Your task to perform on an android device: Search for flights from Helsinki to Tokyo Image 0: 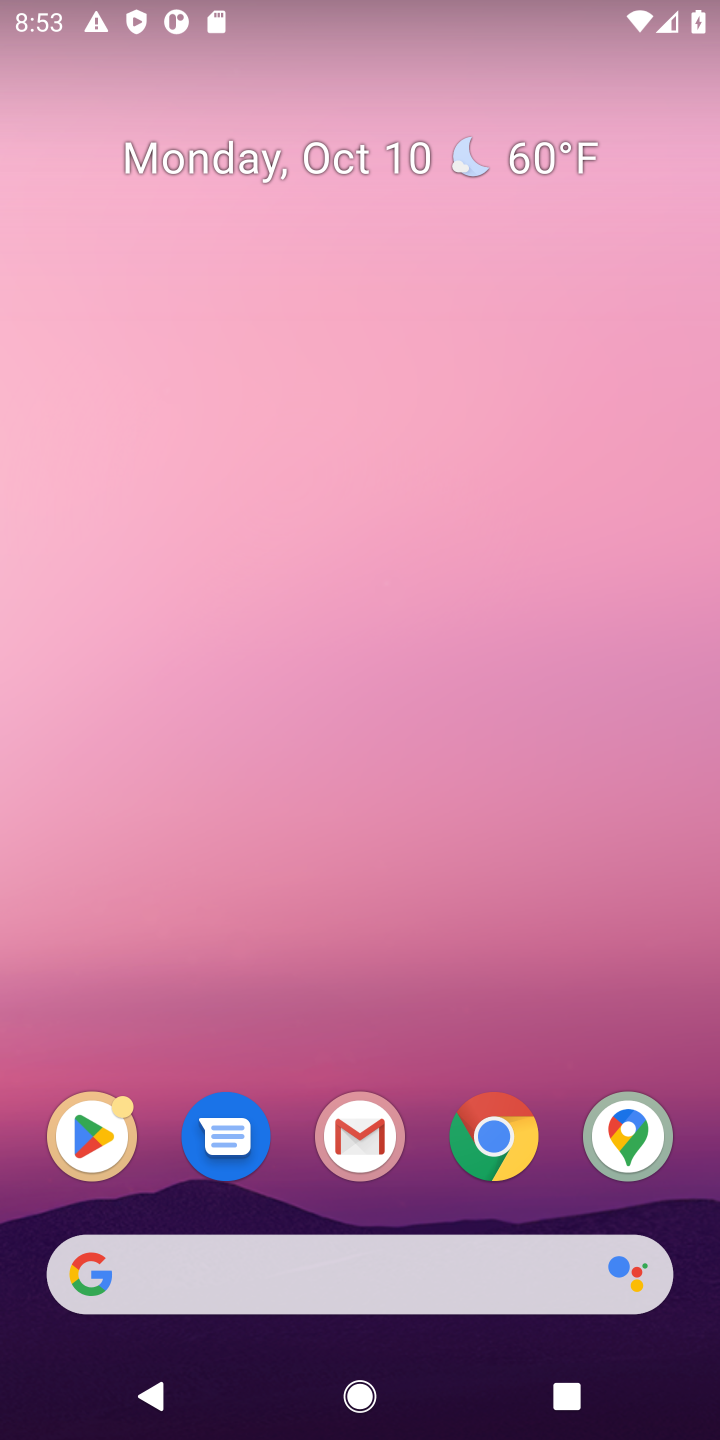
Step 0: click (385, 1299)
Your task to perform on an android device: Search for flights from Helsinki to Tokyo Image 1: 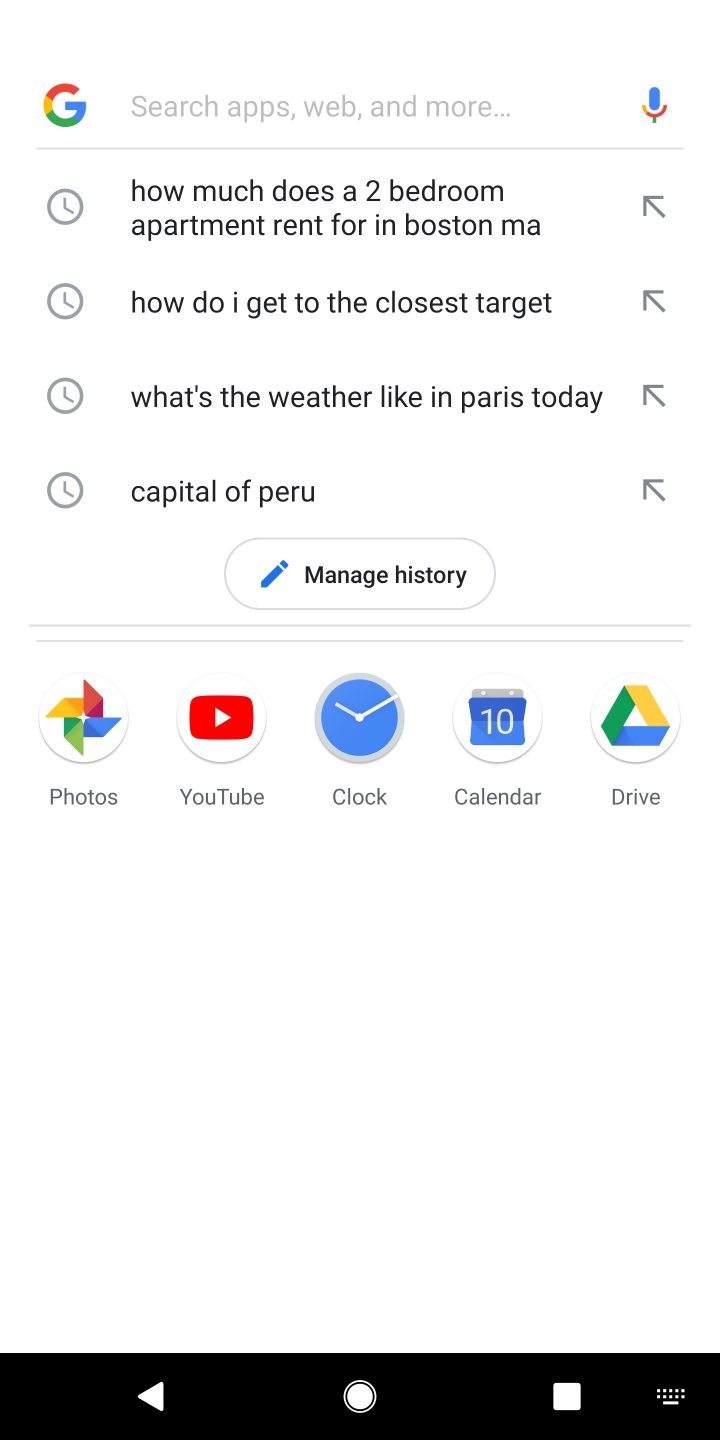
Step 1: type "flights from Helsinki to Tokyo"
Your task to perform on an android device: Search for flights from Helsinki to Tokyo Image 2: 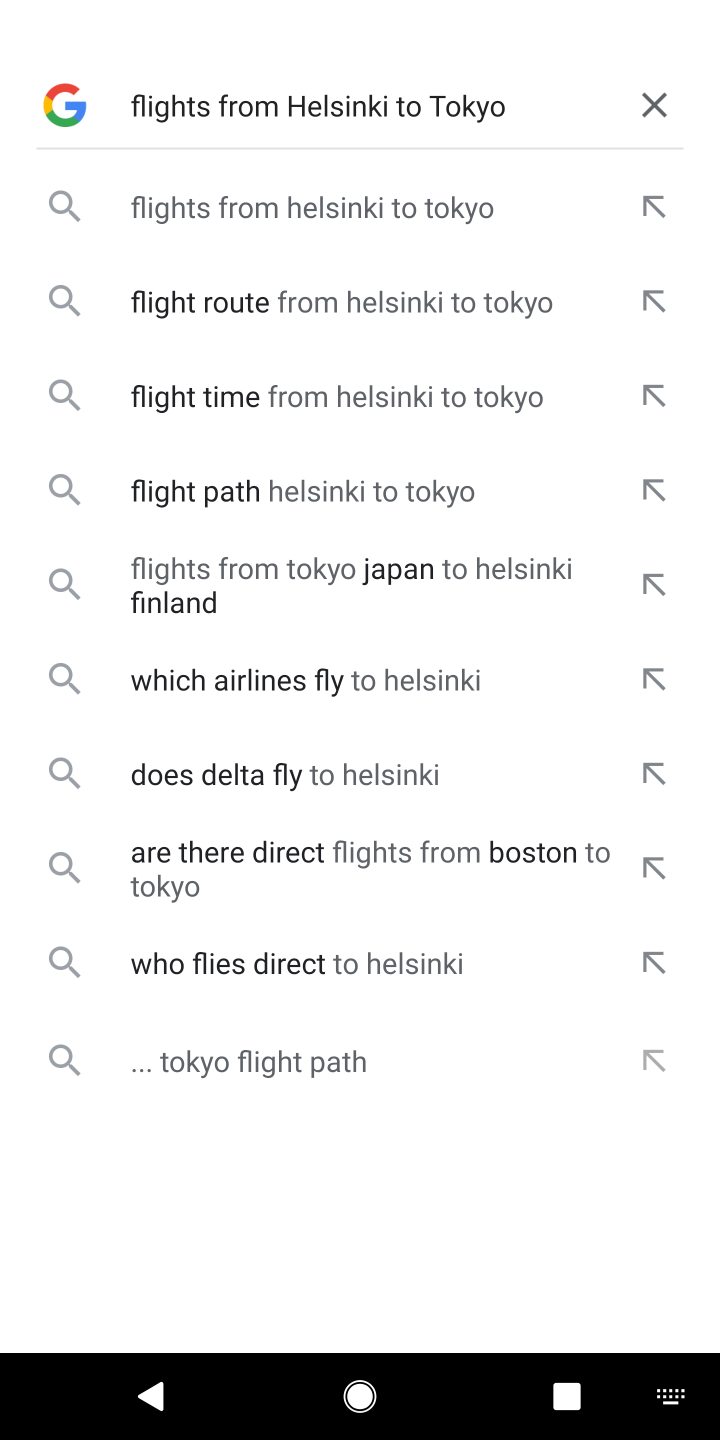
Step 2: click (307, 204)
Your task to perform on an android device: Search for flights from Helsinki to Tokyo Image 3: 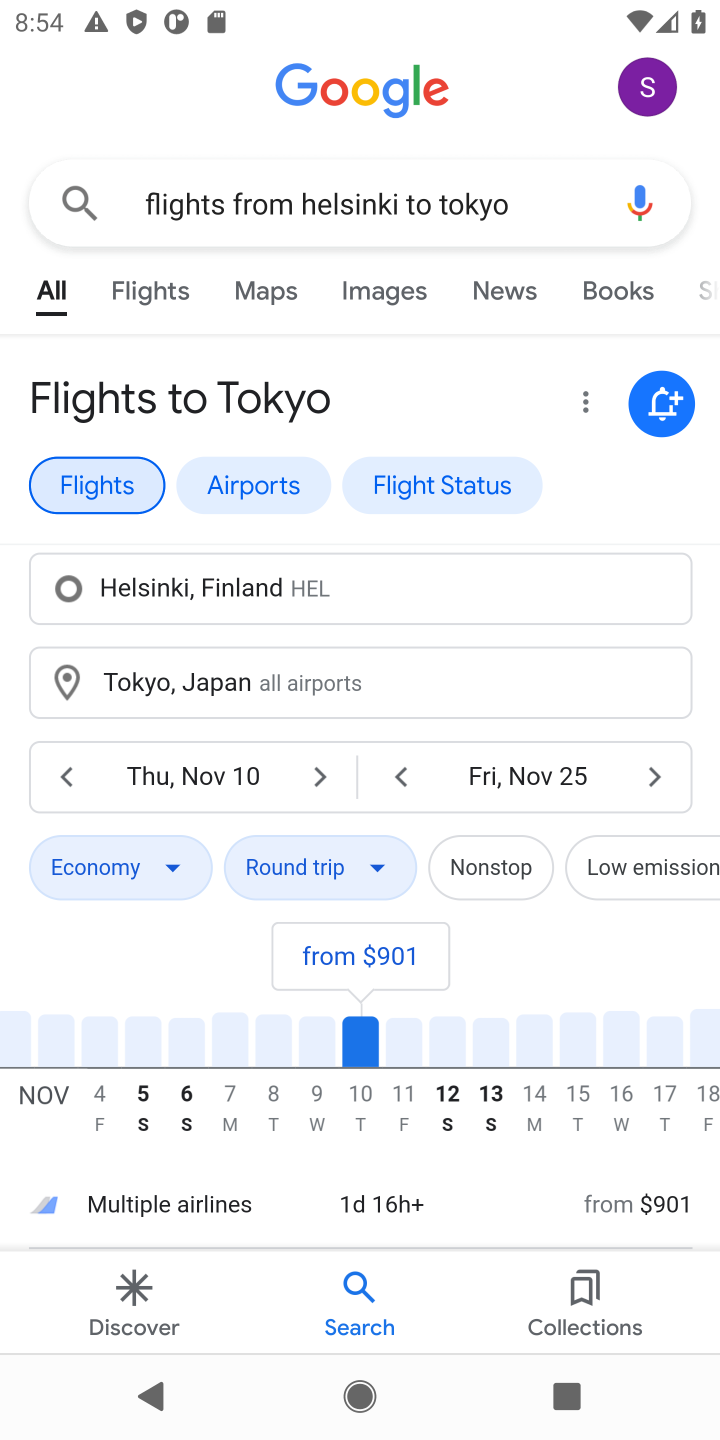
Step 3: task complete